Your task to perform on an android device: change the clock display to digital Image 0: 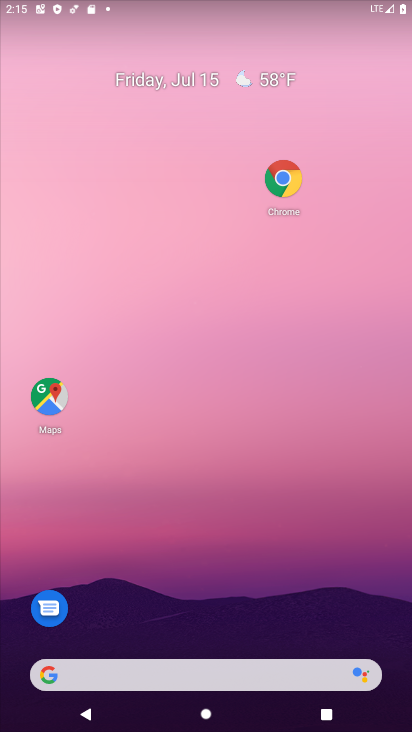
Step 0: drag from (254, 617) to (226, 95)
Your task to perform on an android device: change the clock display to digital Image 1: 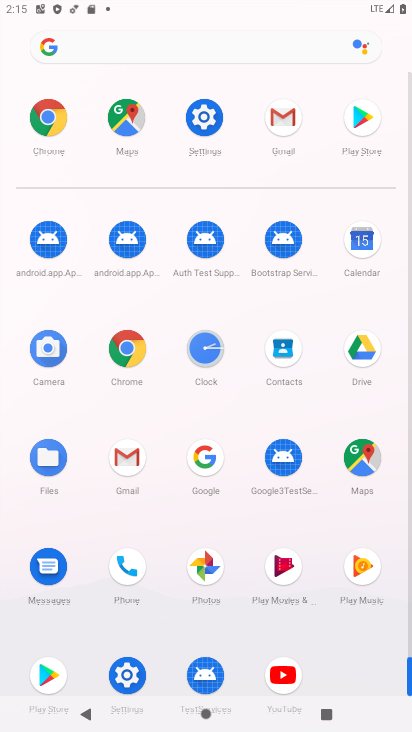
Step 1: click (207, 345)
Your task to perform on an android device: change the clock display to digital Image 2: 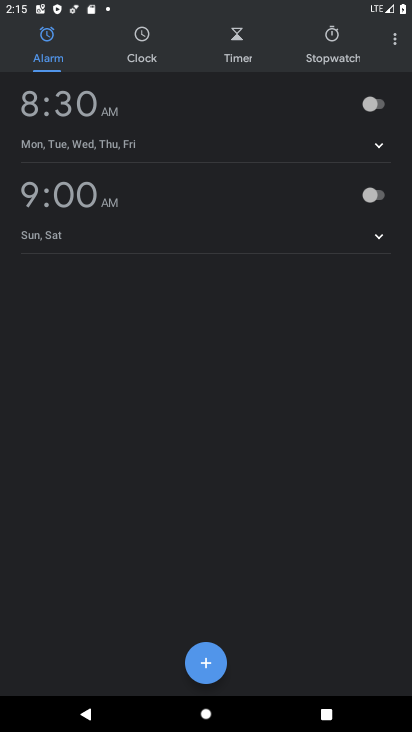
Step 2: click (405, 35)
Your task to perform on an android device: change the clock display to digital Image 3: 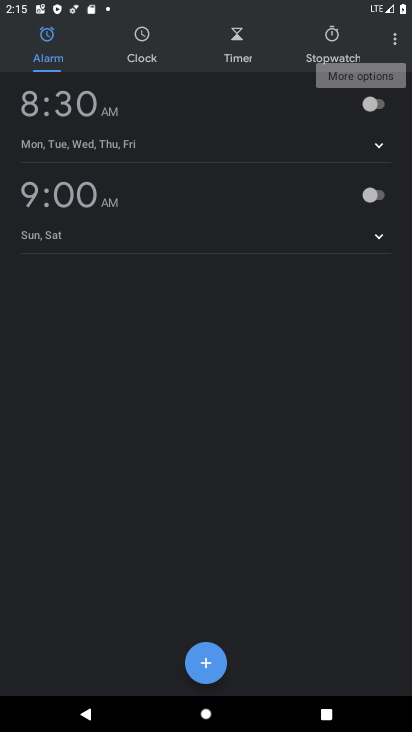
Step 3: click (401, 35)
Your task to perform on an android device: change the clock display to digital Image 4: 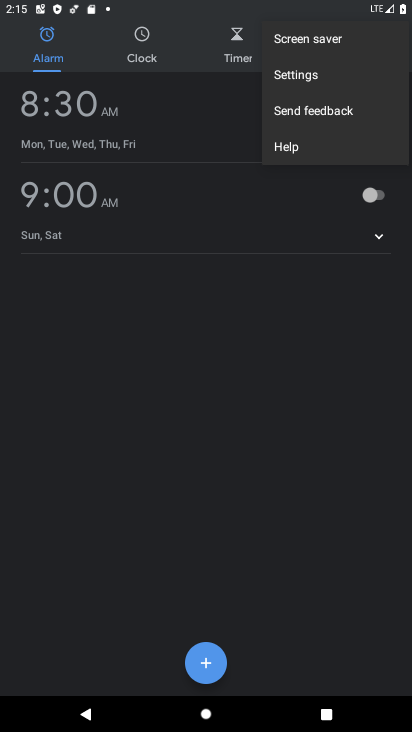
Step 4: click (276, 65)
Your task to perform on an android device: change the clock display to digital Image 5: 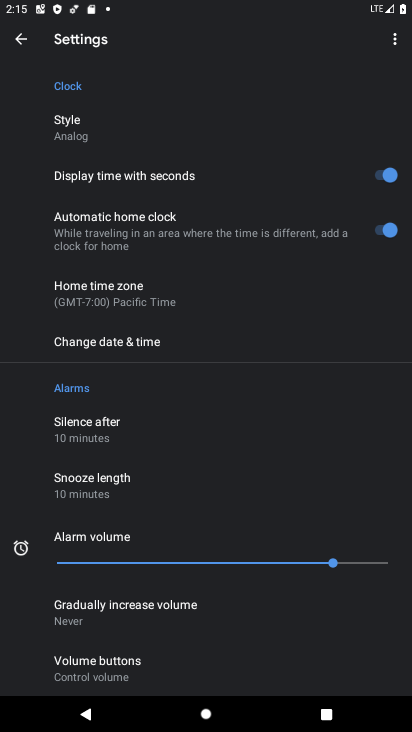
Step 5: click (88, 121)
Your task to perform on an android device: change the clock display to digital Image 6: 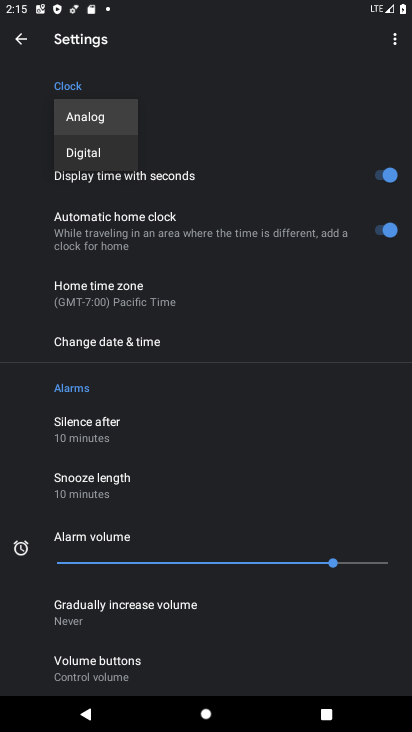
Step 6: click (85, 144)
Your task to perform on an android device: change the clock display to digital Image 7: 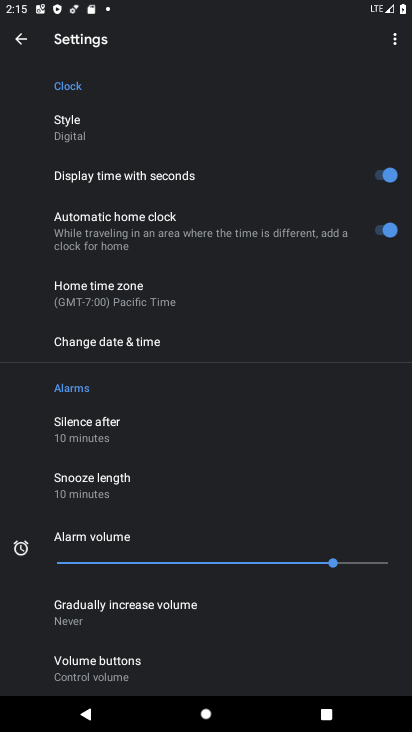
Step 7: task complete